Your task to perform on an android device: Open Google Chrome and open the bookmarks view Image 0: 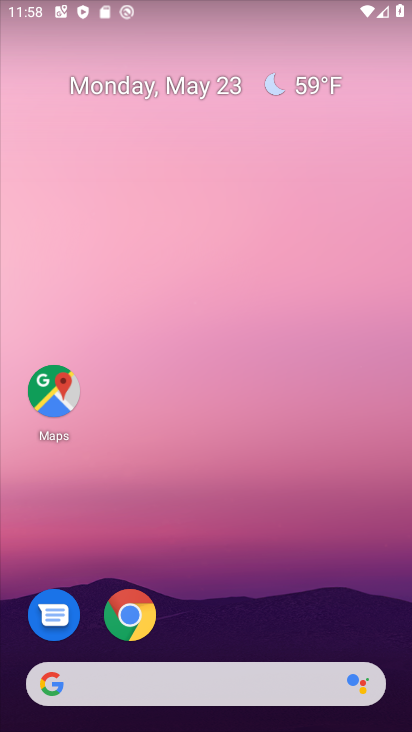
Step 0: drag from (273, 598) to (235, 82)
Your task to perform on an android device: Open Google Chrome and open the bookmarks view Image 1: 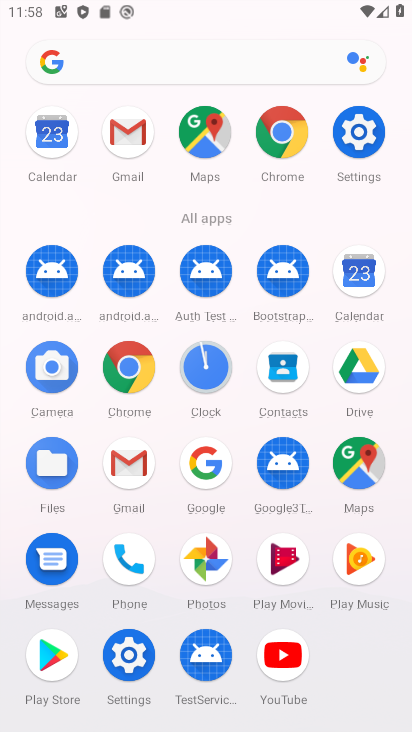
Step 1: drag from (4, 594) to (13, 213)
Your task to perform on an android device: Open Google Chrome and open the bookmarks view Image 2: 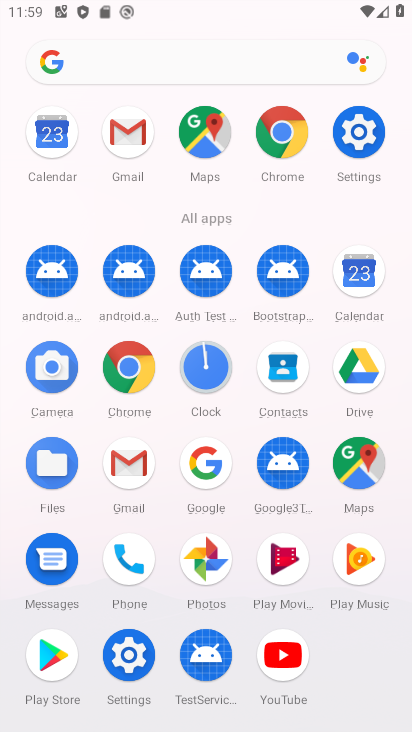
Step 2: click (127, 360)
Your task to perform on an android device: Open Google Chrome and open the bookmarks view Image 3: 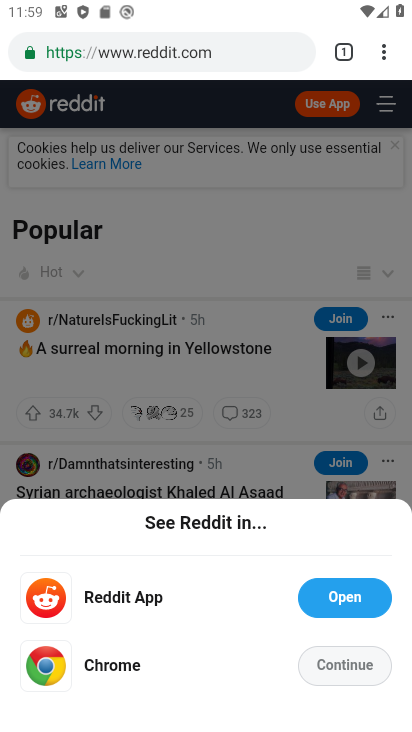
Step 3: task complete